Your task to perform on an android device: change notifications settings Image 0: 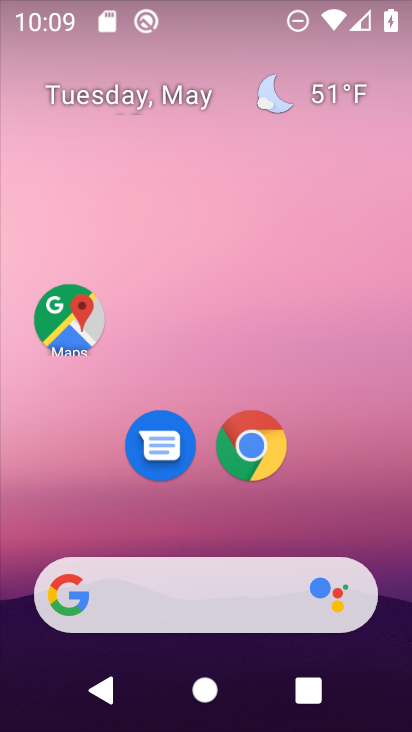
Step 0: drag from (205, 578) to (174, 84)
Your task to perform on an android device: change notifications settings Image 1: 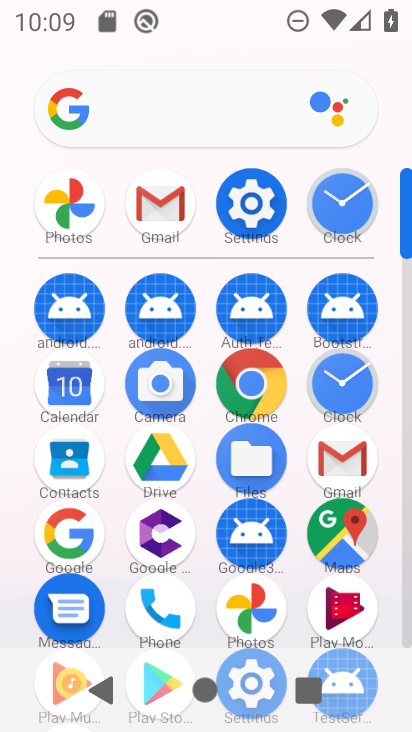
Step 1: click (259, 210)
Your task to perform on an android device: change notifications settings Image 2: 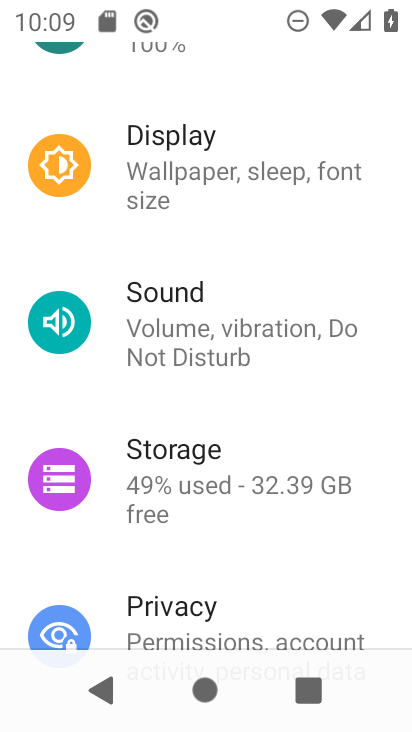
Step 2: click (180, 323)
Your task to perform on an android device: change notifications settings Image 3: 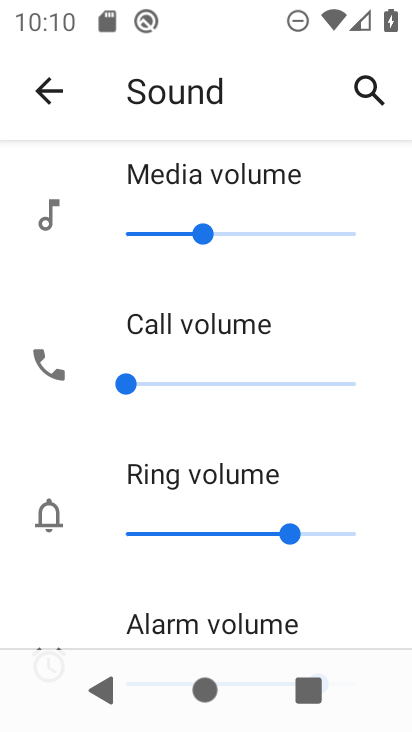
Step 3: drag from (180, 581) to (148, 59)
Your task to perform on an android device: change notifications settings Image 4: 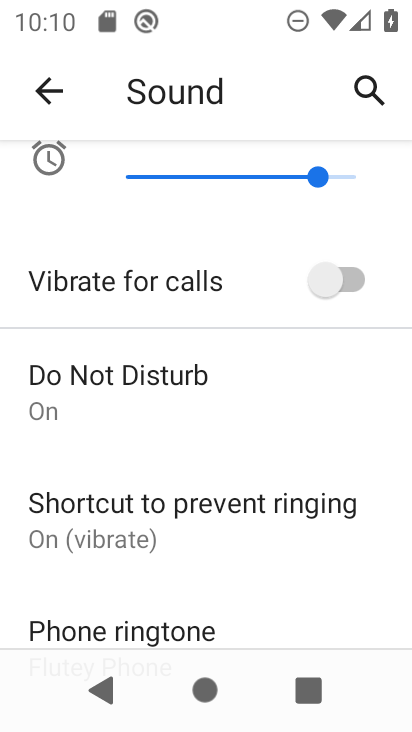
Step 4: click (334, 275)
Your task to perform on an android device: change notifications settings Image 5: 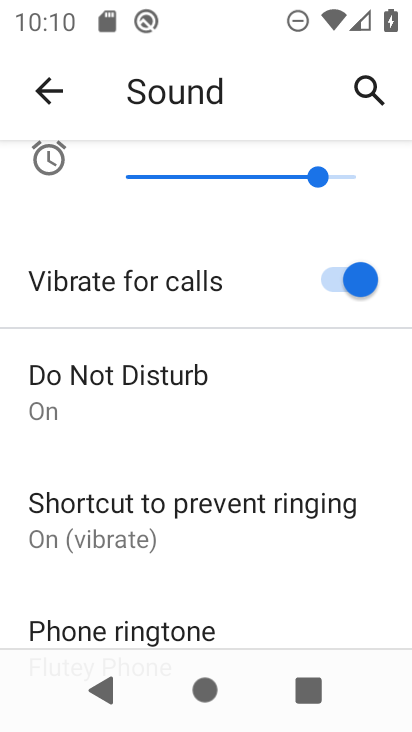
Step 5: task complete